Your task to perform on an android device: change your default location settings in chrome Image 0: 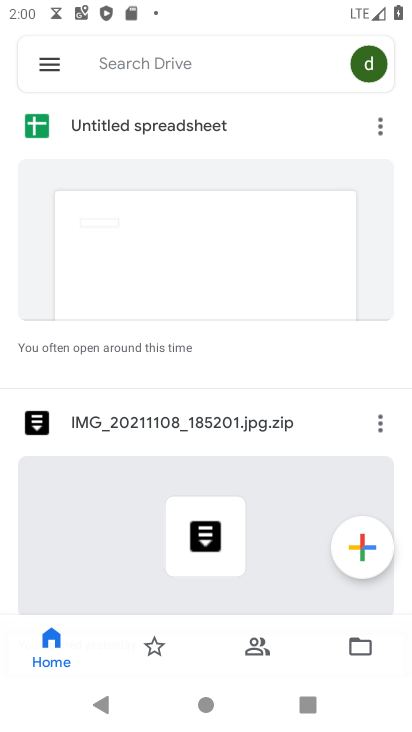
Step 0: press home button
Your task to perform on an android device: change your default location settings in chrome Image 1: 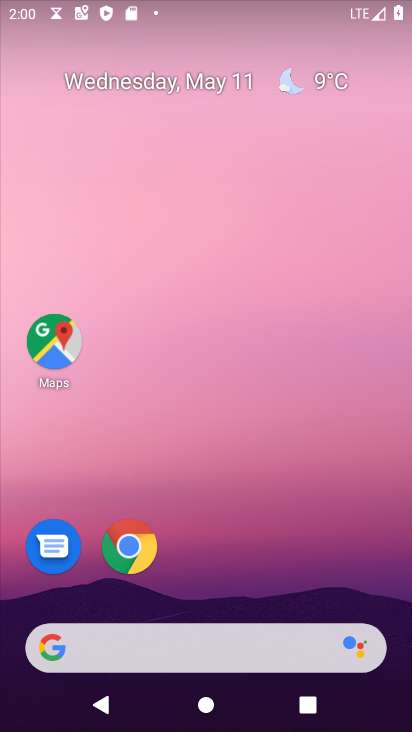
Step 1: drag from (220, 612) to (274, 6)
Your task to perform on an android device: change your default location settings in chrome Image 2: 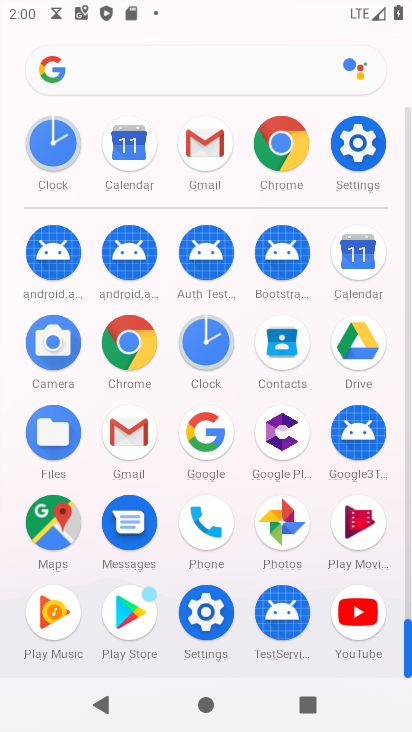
Step 2: click (130, 345)
Your task to perform on an android device: change your default location settings in chrome Image 3: 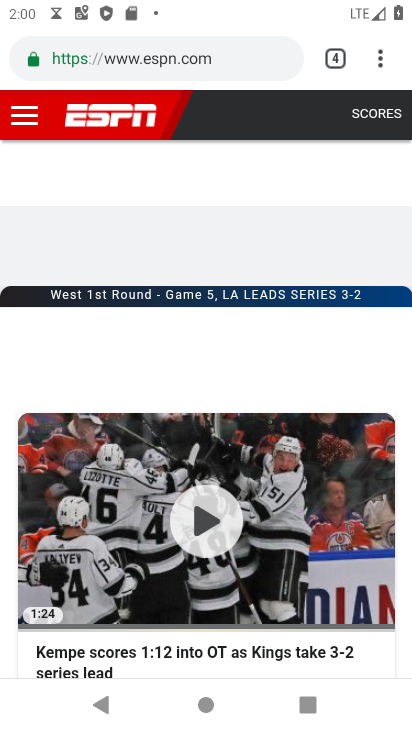
Step 3: drag from (376, 59) to (234, 574)
Your task to perform on an android device: change your default location settings in chrome Image 4: 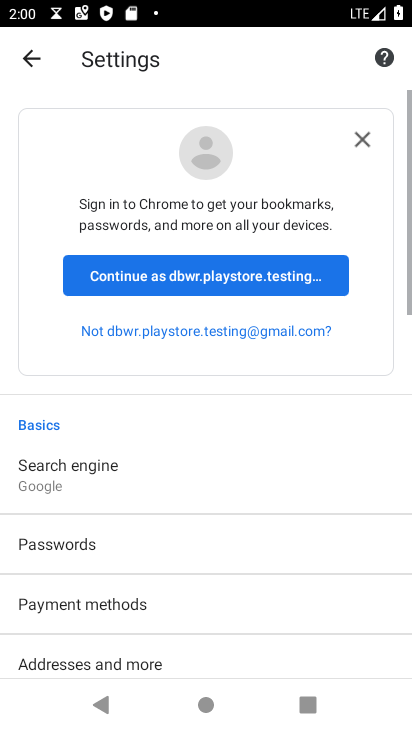
Step 4: drag from (230, 570) to (269, 10)
Your task to perform on an android device: change your default location settings in chrome Image 5: 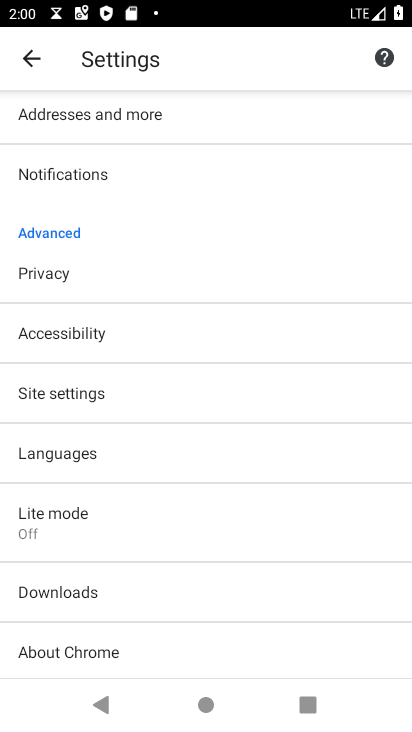
Step 5: click (92, 408)
Your task to perform on an android device: change your default location settings in chrome Image 6: 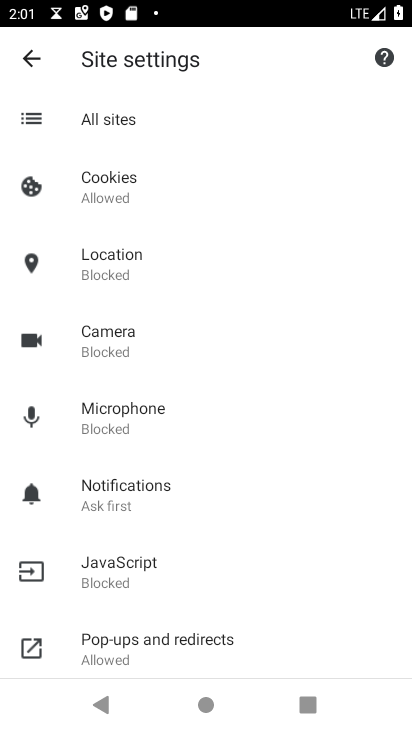
Step 6: click (122, 270)
Your task to perform on an android device: change your default location settings in chrome Image 7: 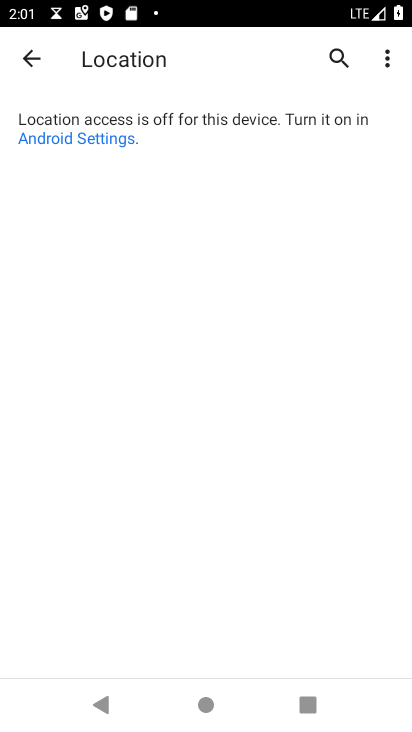
Step 7: click (75, 136)
Your task to perform on an android device: change your default location settings in chrome Image 8: 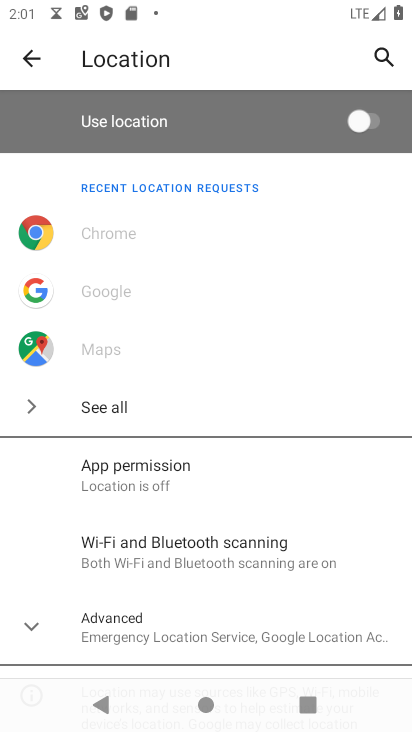
Step 8: task complete